Your task to perform on an android device: show emergency info Image 0: 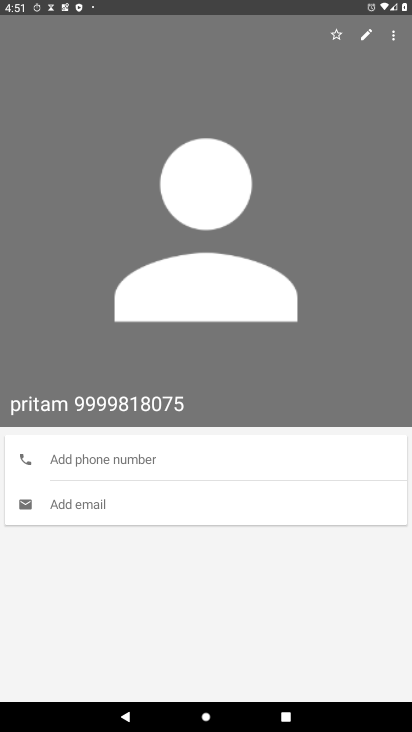
Step 0: press home button
Your task to perform on an android device: show emergency info Image 1: 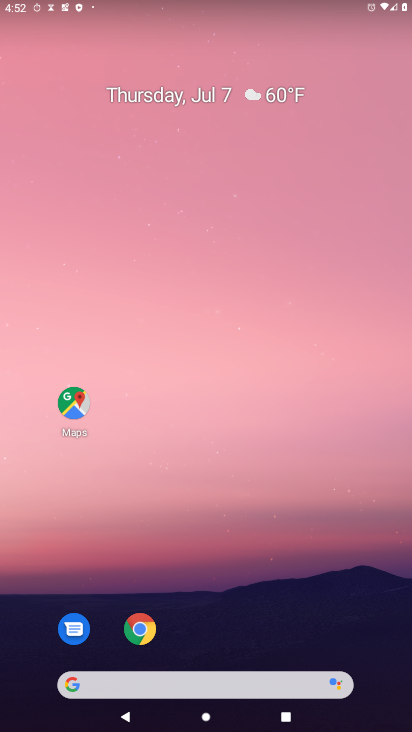
Step 1: drag from (208, 417) to (189, 133)
Your task to perform on an android device: show emergency info Image 2: 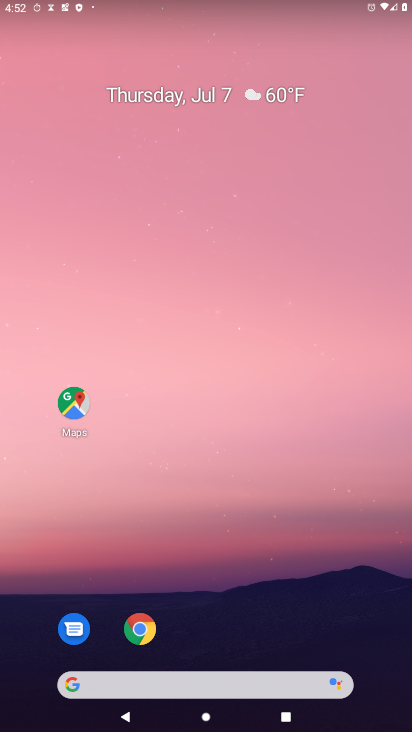
Step 2: drag from (237, 433) to (243, 86)
Your task to perform on an android device: show emergency info Image 3: 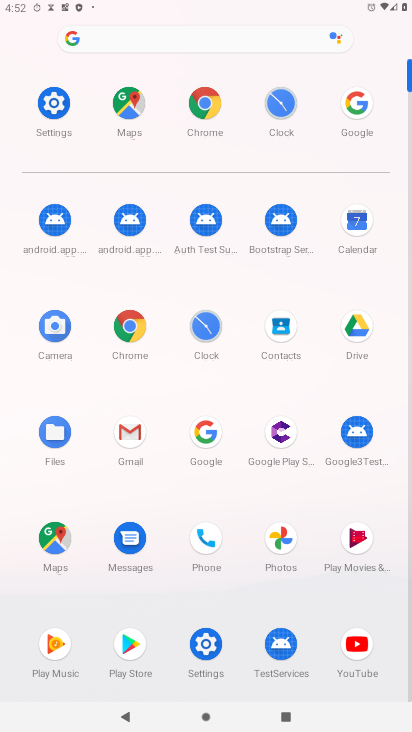
Step 3: click (55, 103)
Your task to perform on an android device: show emergency info Image 4: 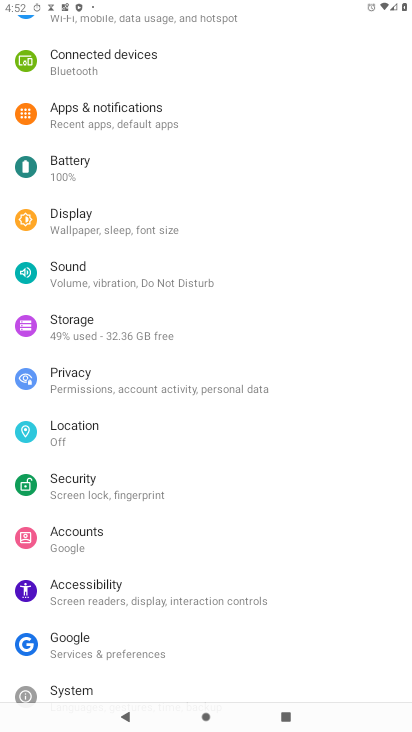
Step 4: drag from (104, 594) to (153, 98)
Your task to perform on an android device: show emergency info Image 5: 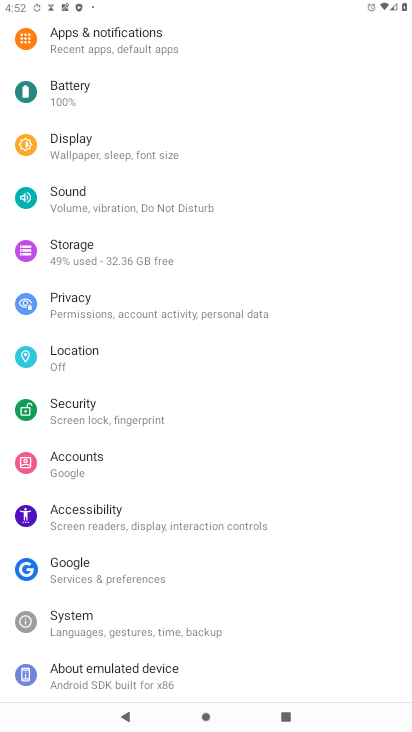
Step 5: click (78, 676)
Your task to perform on an android device: show emergency info Image 6: 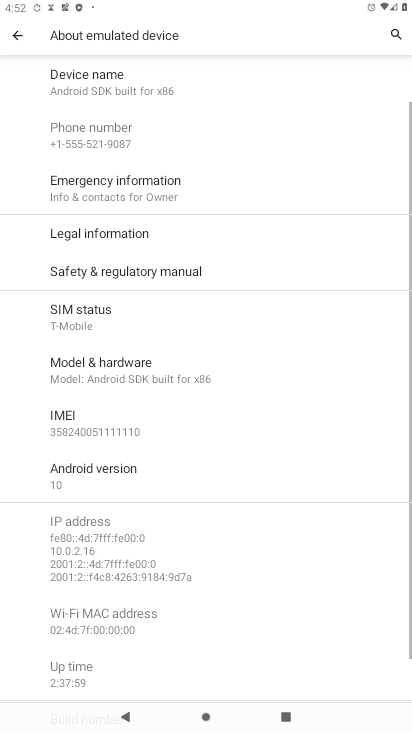
Step 6: click (105, 468)
Your task to perform on an android device: show emergency info Image 7: 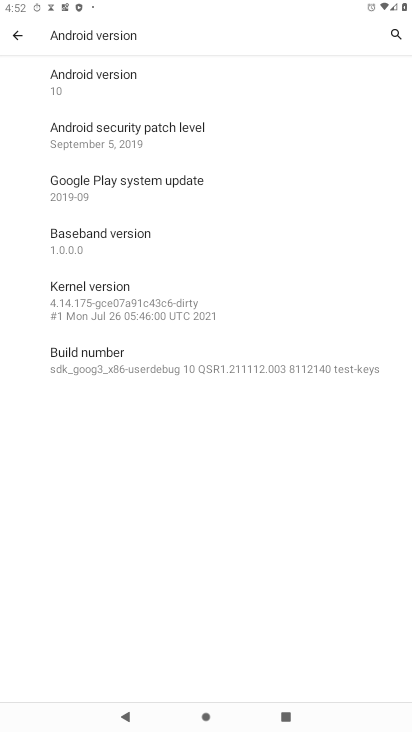
Step 7: click (6, 35)
Your task to perform on an android device: show emergency info Image 8: 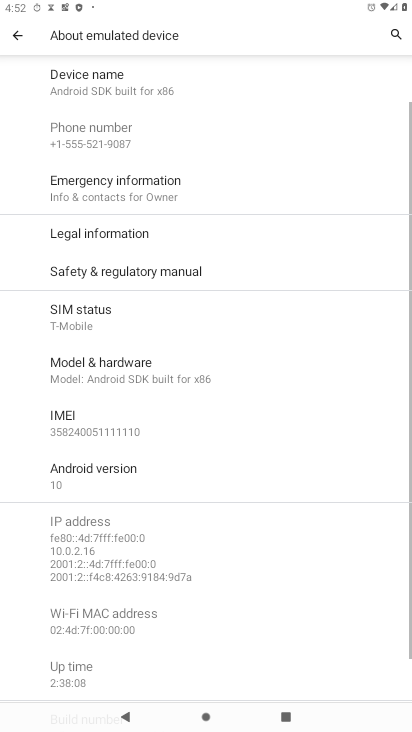
Step 8: click (126, 187)
Your task to perform on an android device: show emergency info Image 9: 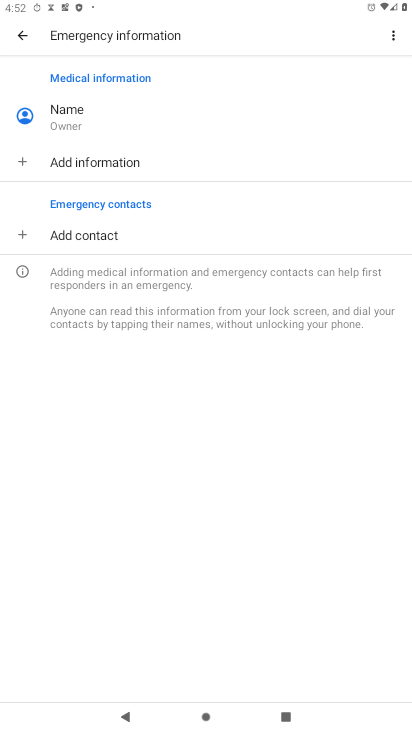
Step 9: task complete